Your task to perform on an android device: Go to notification settings Image 0: 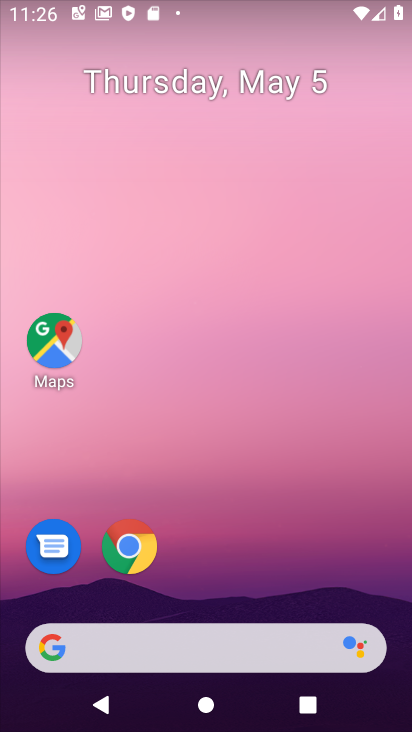
Step 0: drag from (261, 561) to (254, 133)
Your task to perform on an android device: Go to notification settings Image 1: 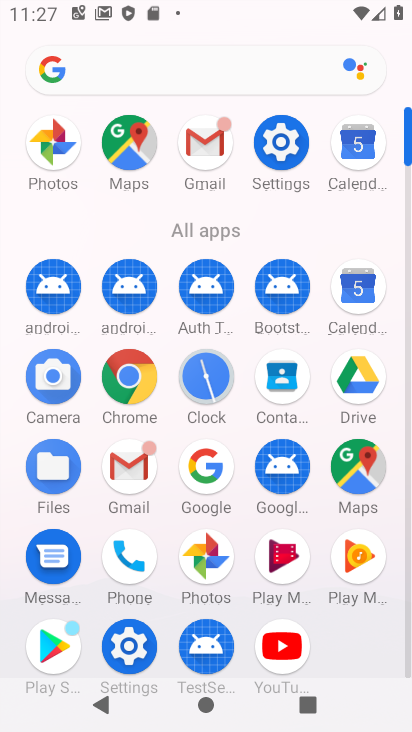
Step 1: click (283, 144)
Your task to perform on an android device: Go to notification settings Image 2: 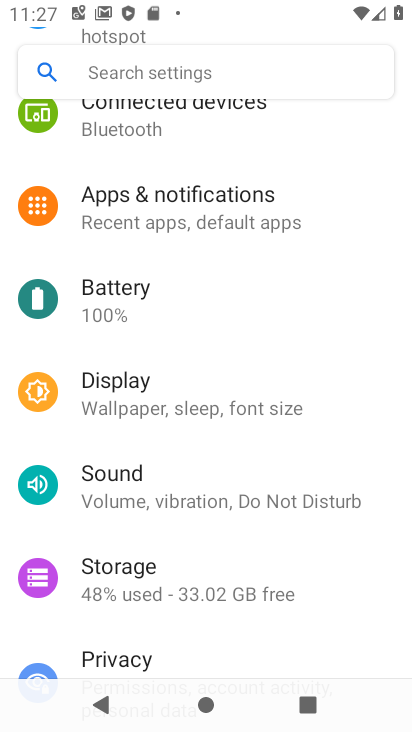
Step 2: click (219, 212)
Your task to perform on an android device: Go to notification settings Image 3: 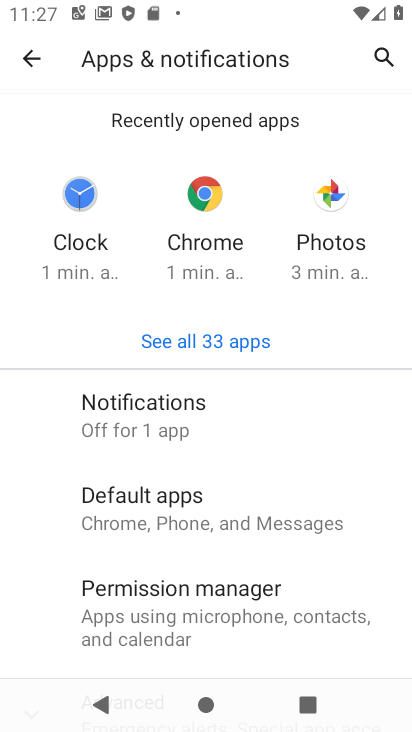
Step 3: task complete